Your task to perform on an android device: turn off location Image 0: 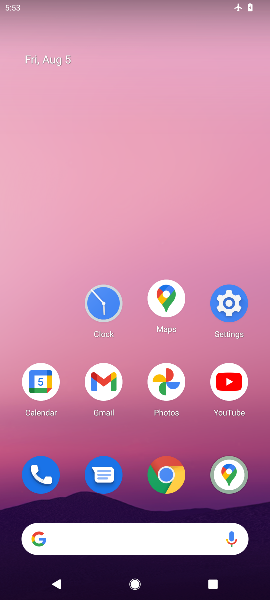
Step 0: click (235, 474)
Your task to perform on an android device: turn off location Image 1: 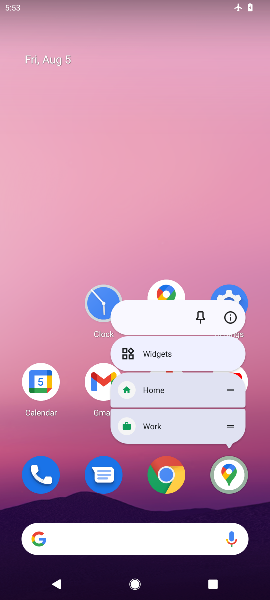
Step 1: click (219, 137)
Your task to perform on an android device: turn off location Image 2: 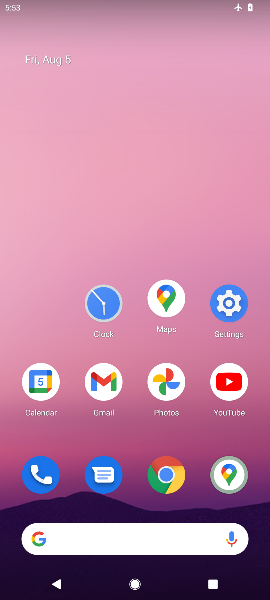
Step 2: click (226, 304)
Your task to perform on an android device: turn off location Image 3: 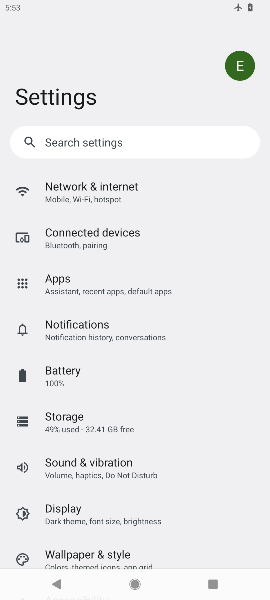
Step 3: drag from (125, 532) to (143, 235)
Your task to perform on an android device: turn off location Image 4: 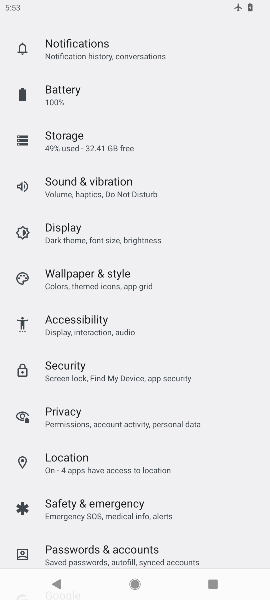
Step 4: click (80, 450)
Your task to perform on an android device: turn off location Image 5: 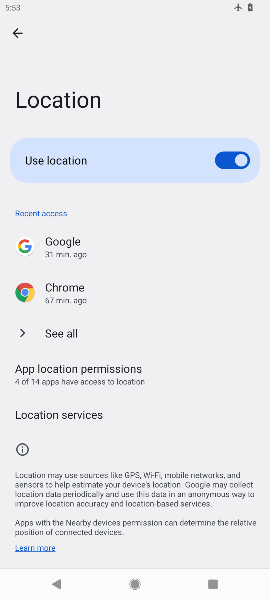
Step 5: click (231, 155)
Your task to perform on an android device: turn off location Image 6: 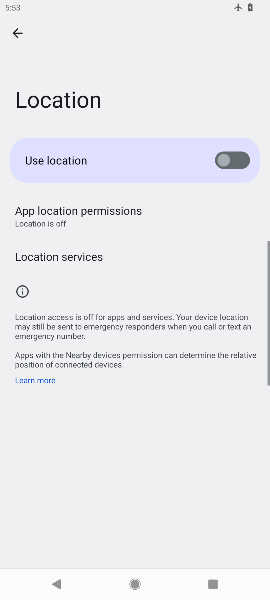
Step 6: task complete